Your task to perform on an android device: What's the weather? Image 0: 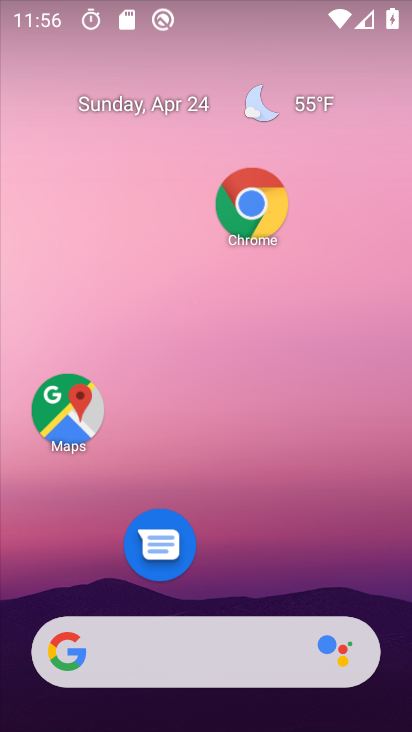
Step 0: drag from (275, 697) to (295, 189)
Your task to perform on an android device: What's the weather? Image 1: 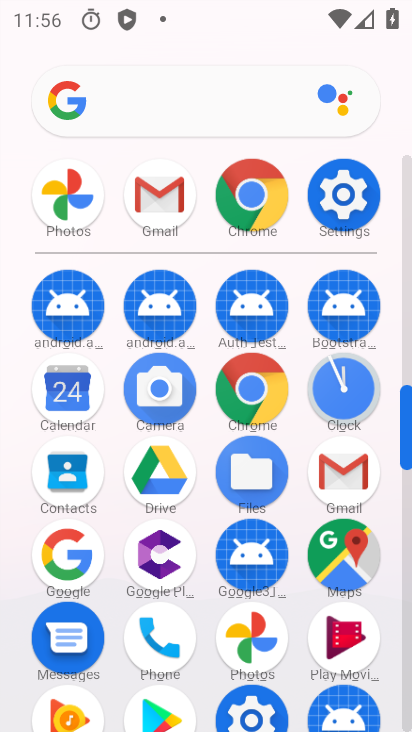
Step 1: click (180, 107)
Your task to perform on an android device: What's the weather? Image 2: 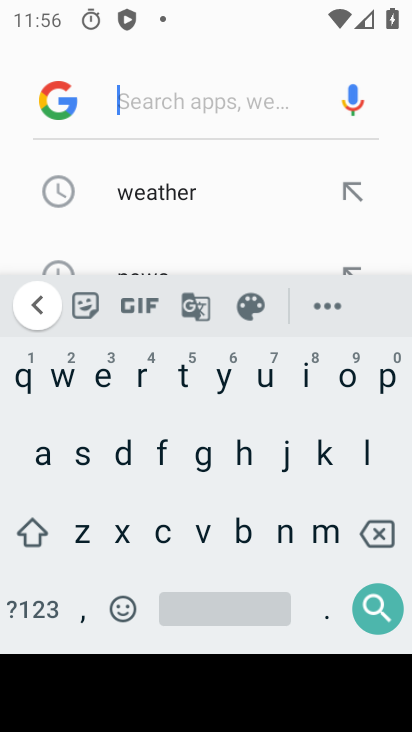
Step 2: click (161, 196)
Your task to perform on an android device: What's the weather? Image 3: 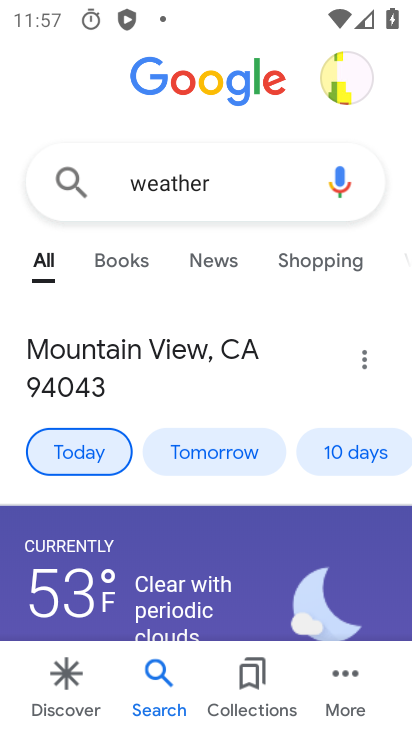
Step 3: task complete